Your task to perform on an android device: Go to privacy settings Image 0: 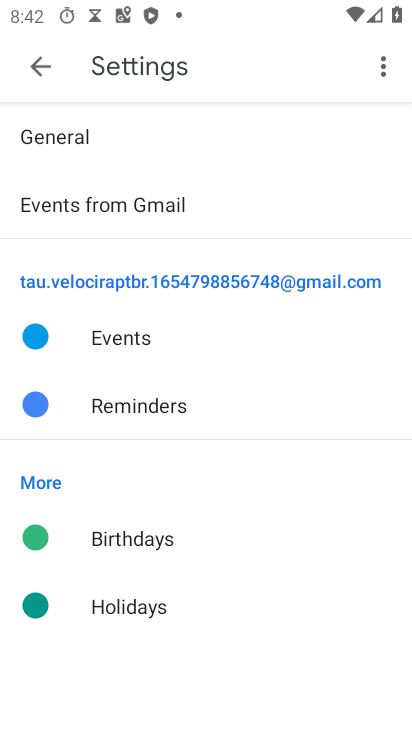
Step 0: press home button
Your task to perform on an android device: Go to privacy settings Image 1: 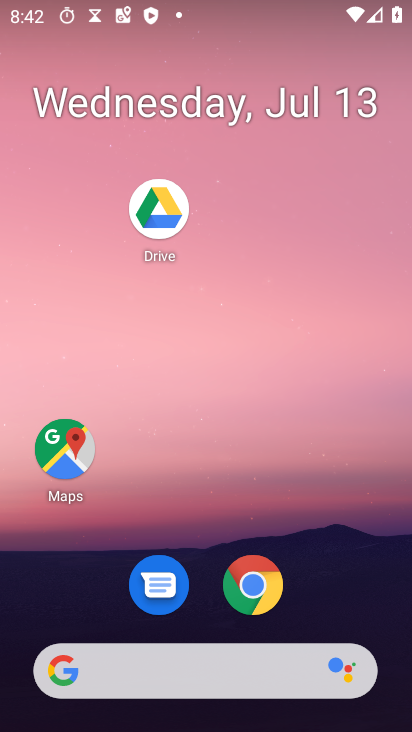
Step 1: drag from (184, 675) to (239, 110)
Your task to perform on an android device: Go to privacy settings Image 2: 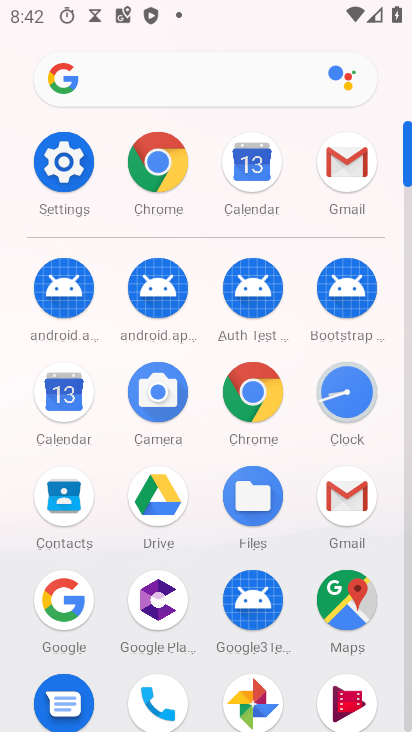
Step 2: click (67, 154)
Your task to perform on an android device: Go to privacy settings Image 3: 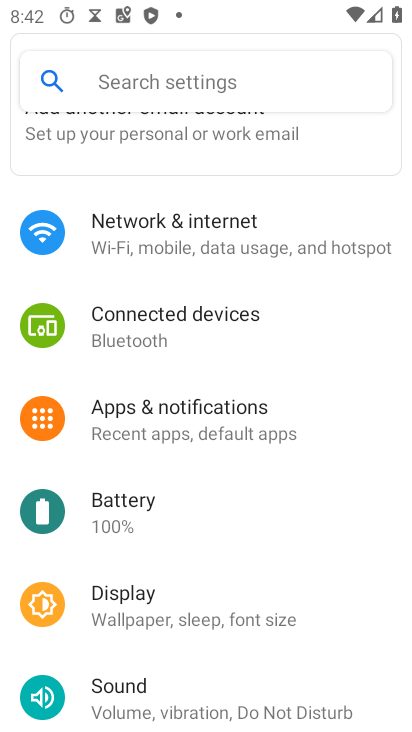
Step 3: drag from (215, 551) to (255, 138)
Your task to perform on an android device: Go to privacy settings Image 4: 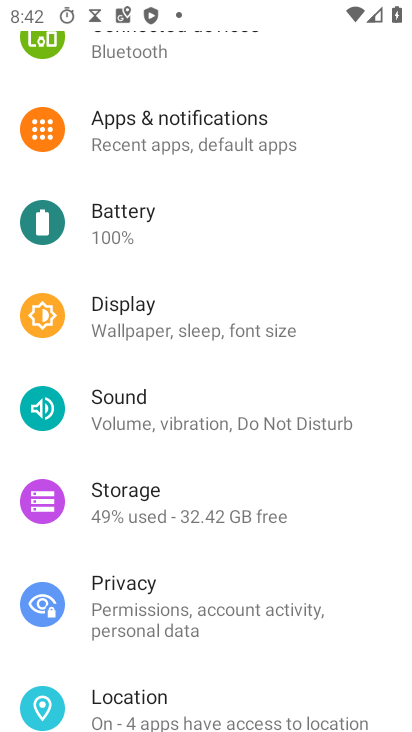
Step 4: click (152, 592)
Your task to perform on an android device: Go to privacy settings Image 5: 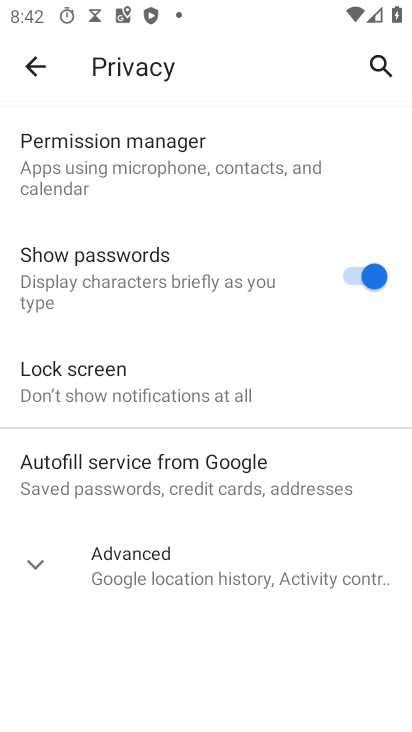
Step 5: task complete